Your task to perform on an android device: turn off wifi Image 0: 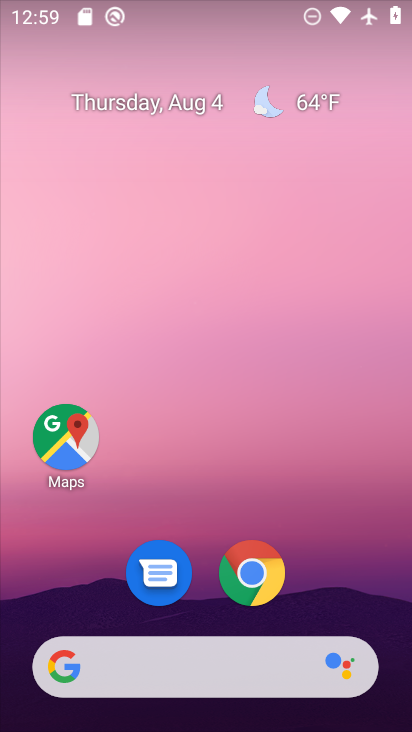
Step 0: drag from (330, 528) to (335, 109)
Your task to perform on an android device: turn off wifi Image 1: 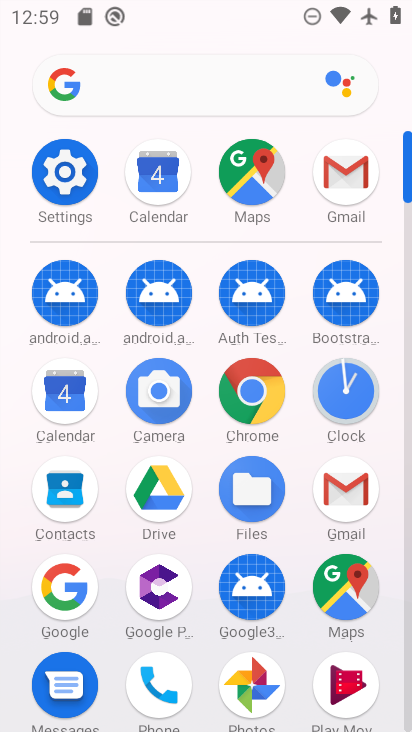
Step 1: click (56, 167)
Your task to perform on an android device: turn off wifi Image 2: 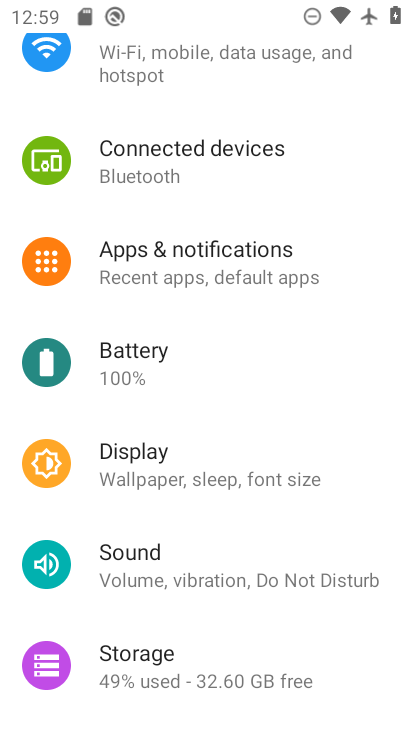
Step 2: click (160, 60)
Your task to perform on an android device: turn off wifi Image 3: 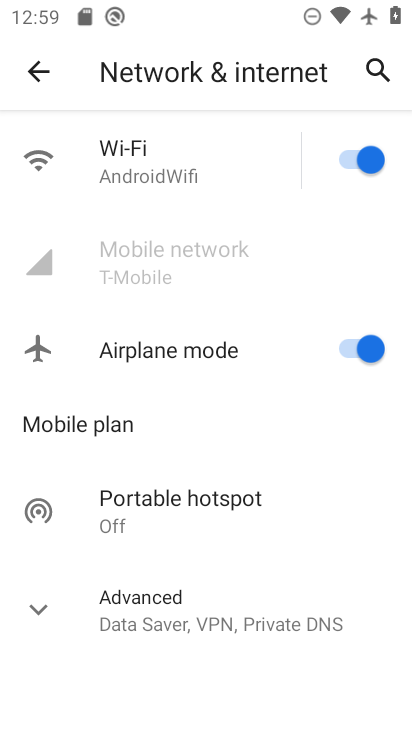
Step 3: click (354, 168)
Your task to perform on an android device: turn off wifi Image 4: 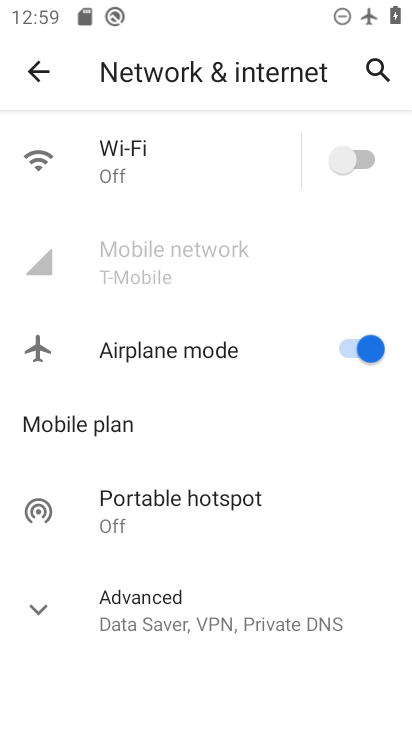
Step 4: task complete